Your task to perform on an android device: Show the shopping cart on bestbuy.com. Image 0: 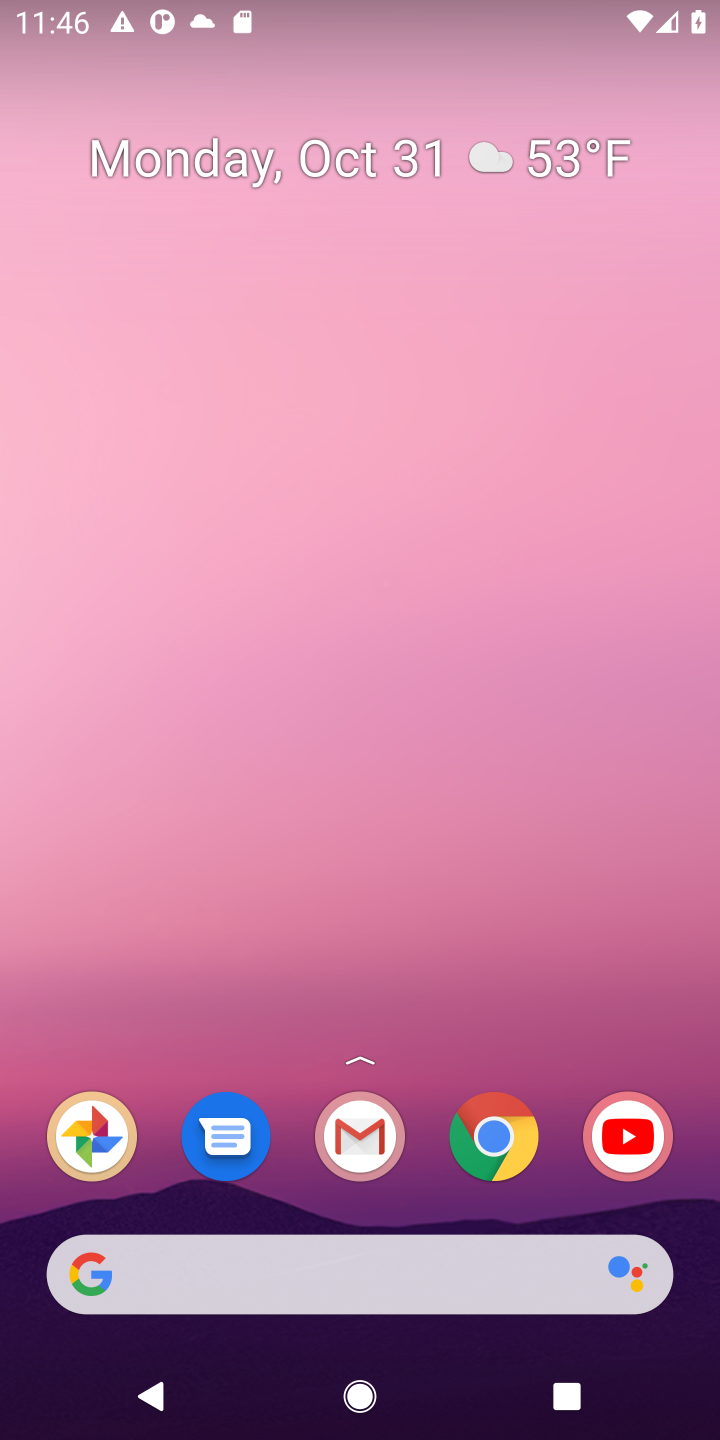
Step 0: press home button
Your task to perform on an android device: Show the shopping cart on bestbuy.com. Image 1: 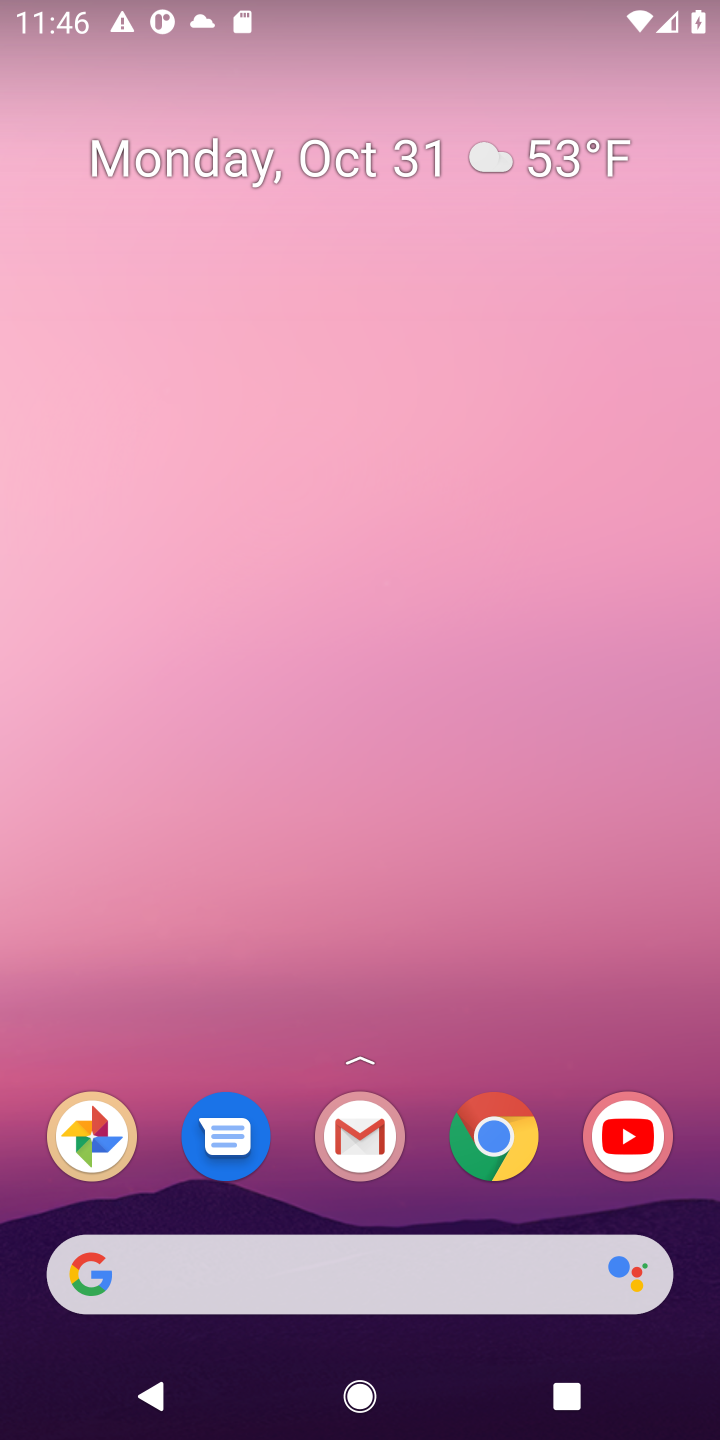
Step 1: click (144, 1283)
Your task to perform on an android device: Show the shopping cart on bestbuy.com. Image 2: 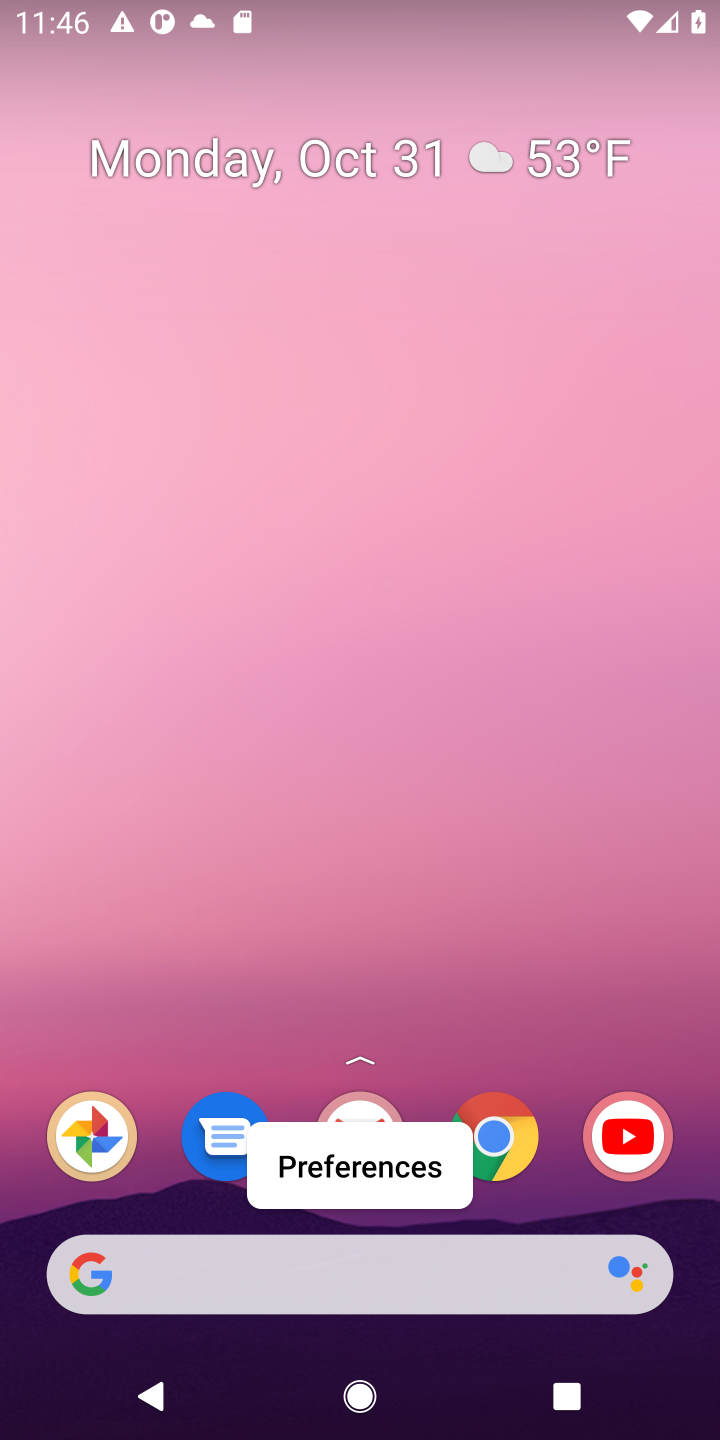
Step 2: click (144, 1283)
Your task to perform on an android device: Show the shopping cart on bestbuy.com. Image 3: 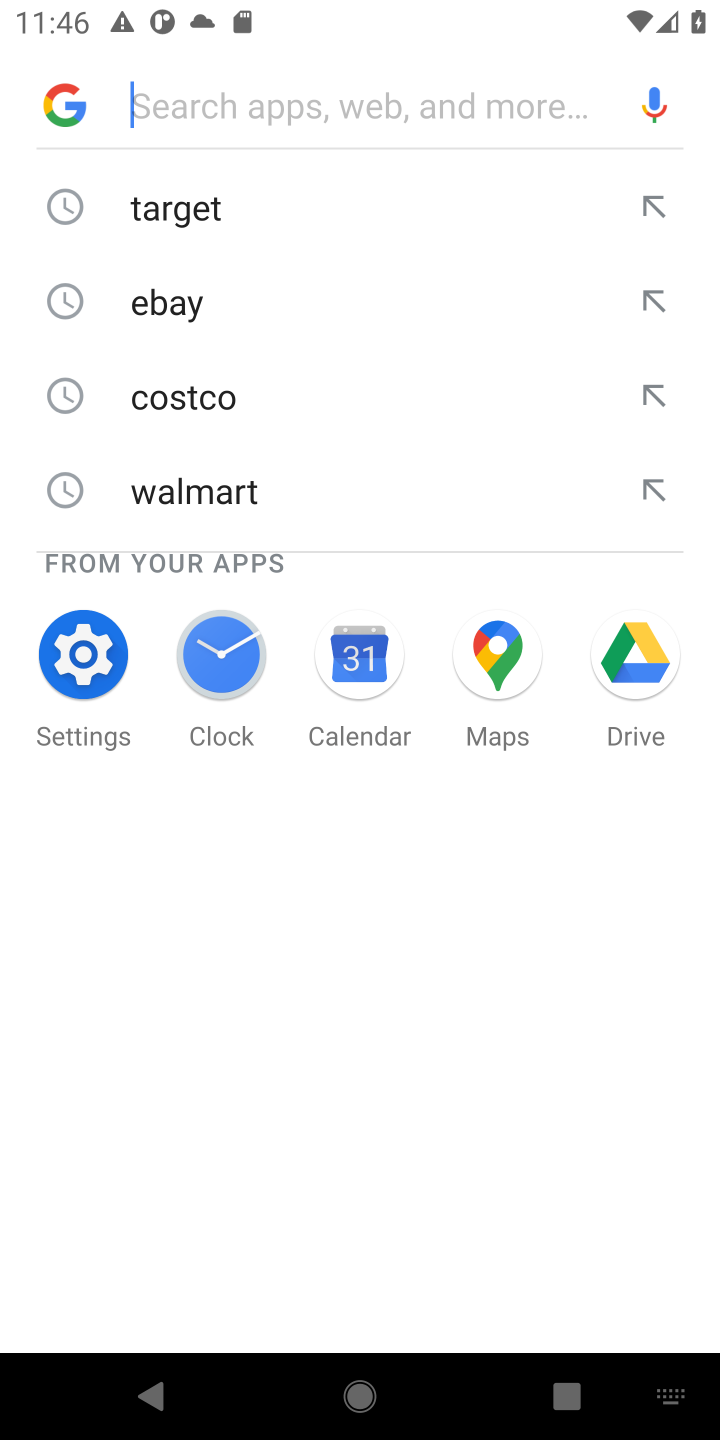
Step 3: type "bestbuy.com"
Your task to perform on an android device: Show the shopping cart on bestbuy.com. Image 4: 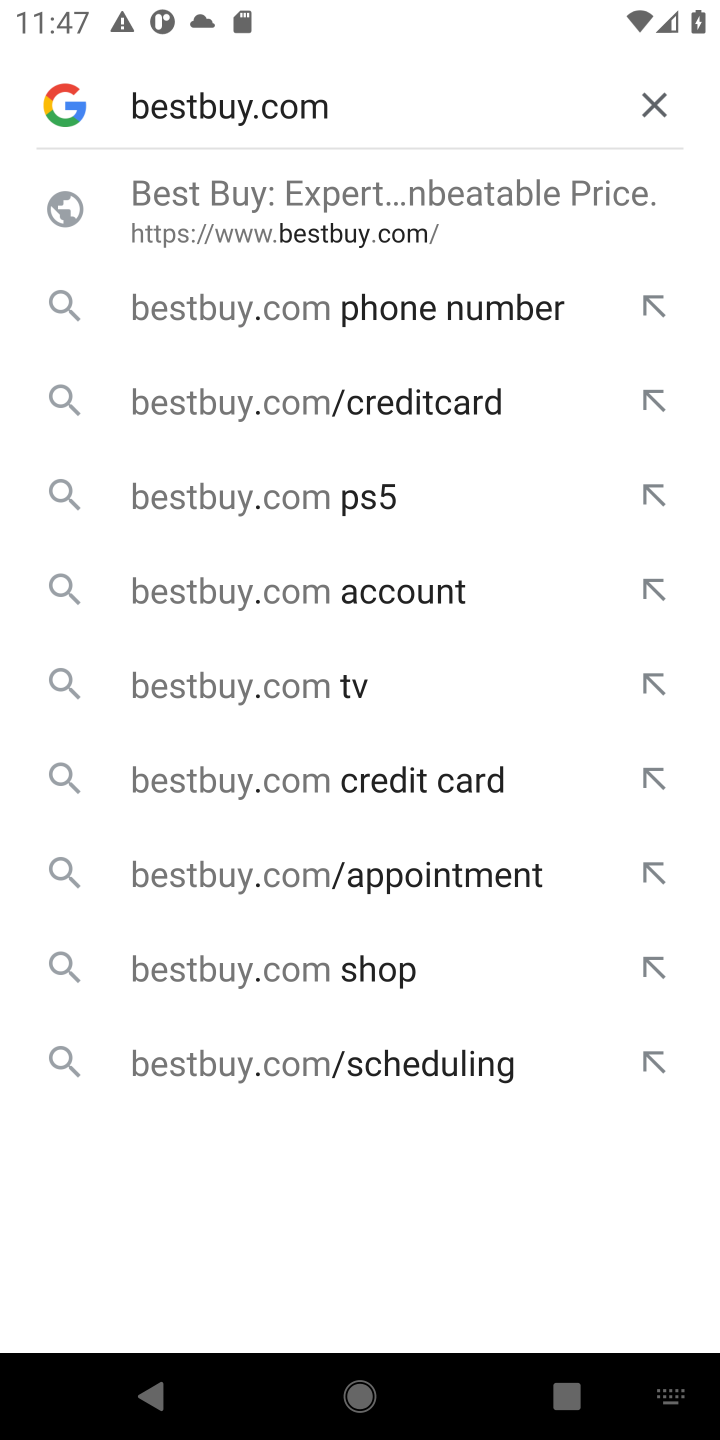
Step 4: press enter
Your task to perform on an android device: Show the shopping cart on bestbuy.com. Image 5: 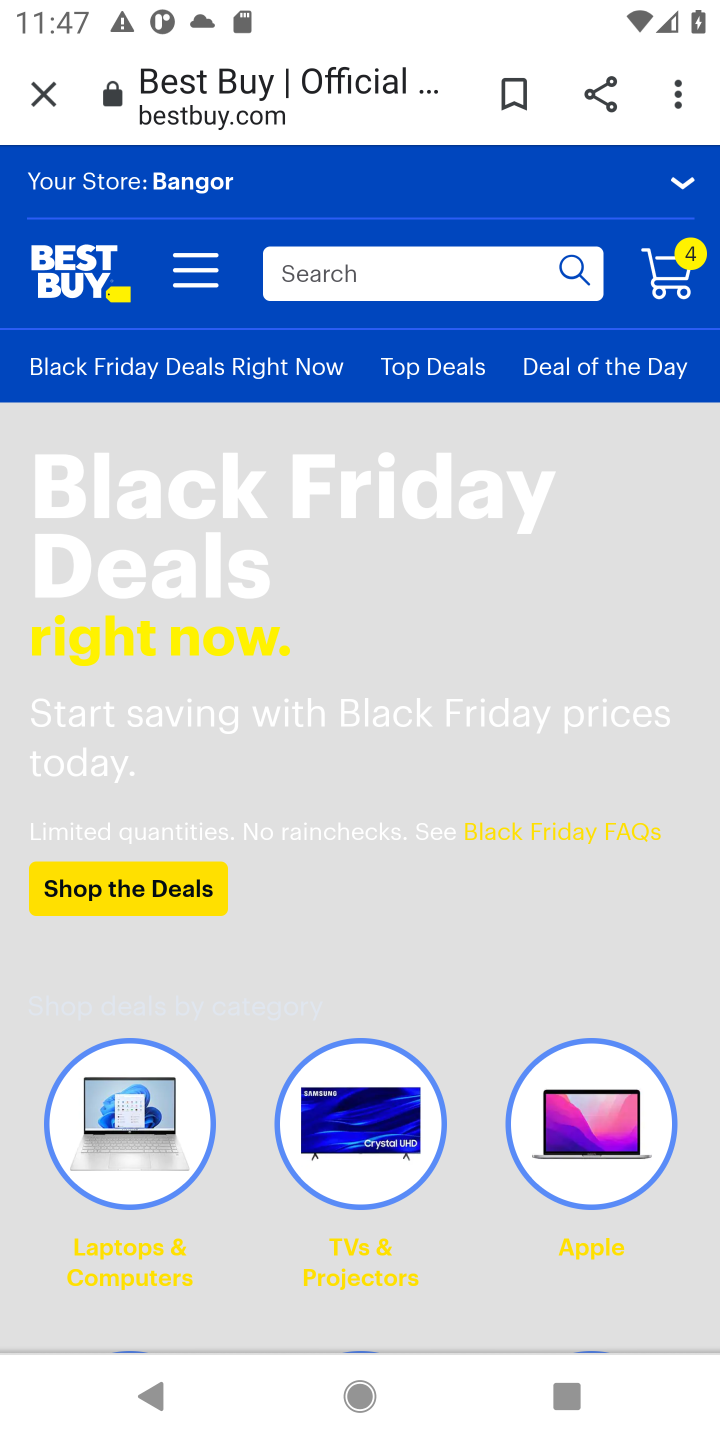
Step 5: click (676, 266)
Your task to perform on an android device: Show the shopping cart on bestbuy.com. Image 6: 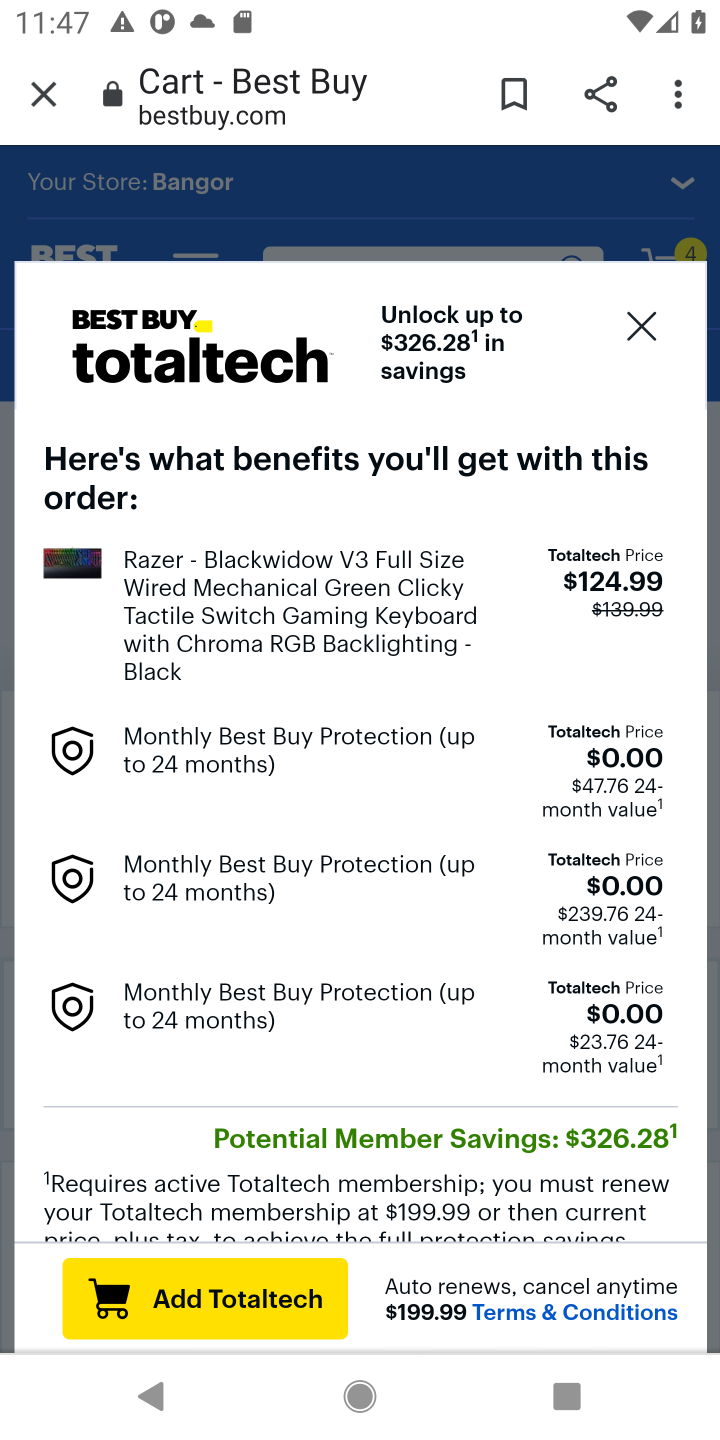
Step 6: click (626, 323)
Your task to perform on an android device: Show the shopping cart on bestbuy.com. Image 7: 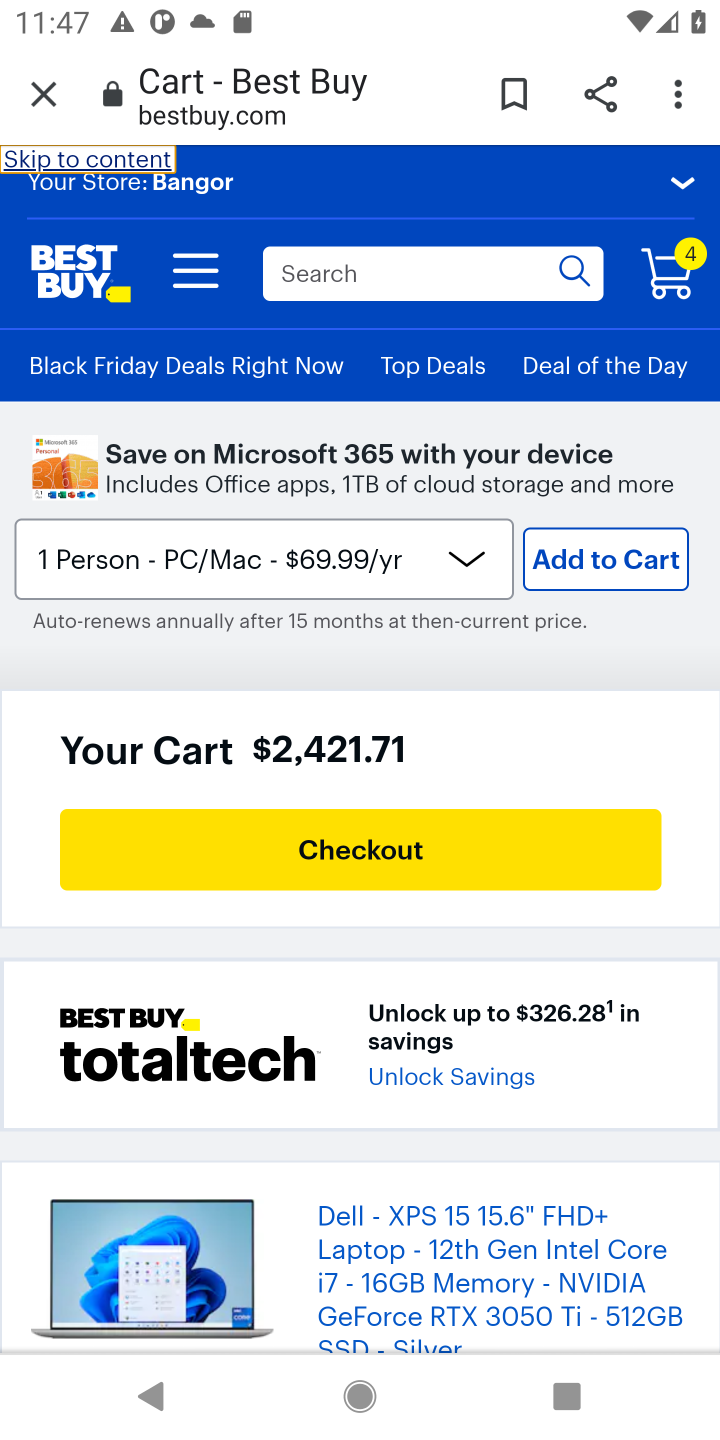
Step 7: task complete